Your task to perform on an android device: check storage Image 0: 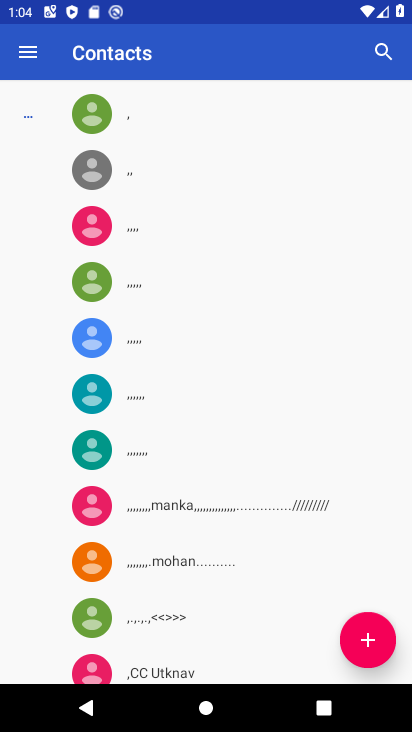
Step 0: press home button
Your task to perform on an android device: check storage Image 1: 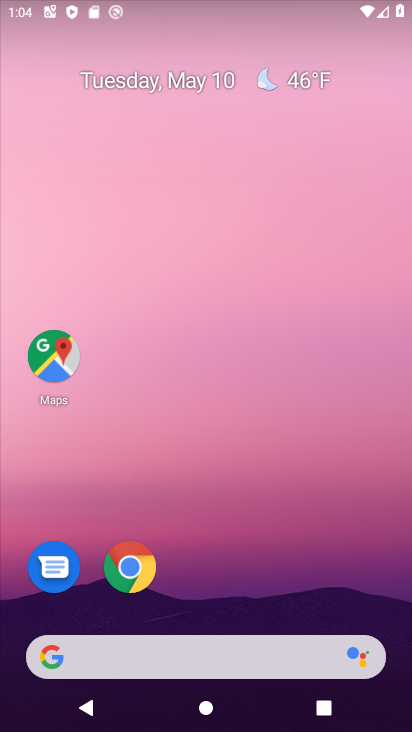
Step 1: drag from (237, 528) to (241, 201)
Your task to perform on an android device: check storage Image 2: 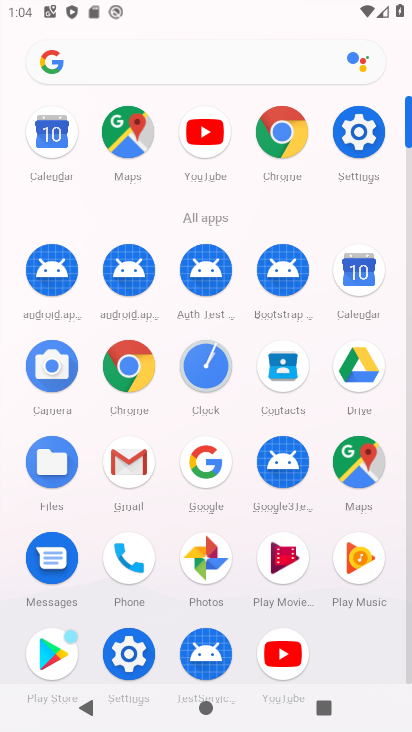
Step 2: click (353, 140)
Your task to perform on an android device: check storage Image 3: 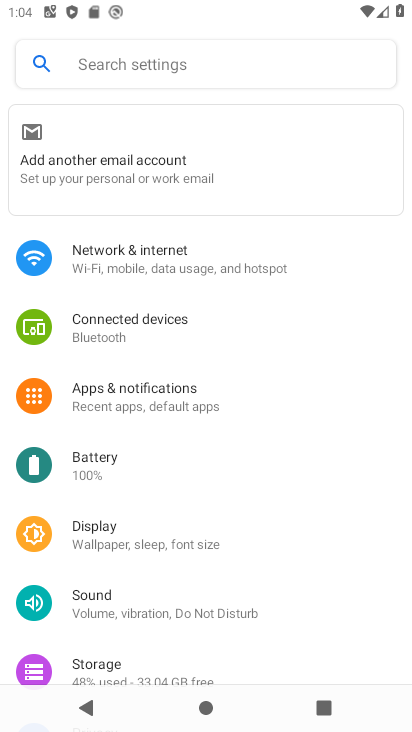
Step 3: drag from (152, 644) to (123, 320)
Your task to perform on an android device: check storage Image 4: 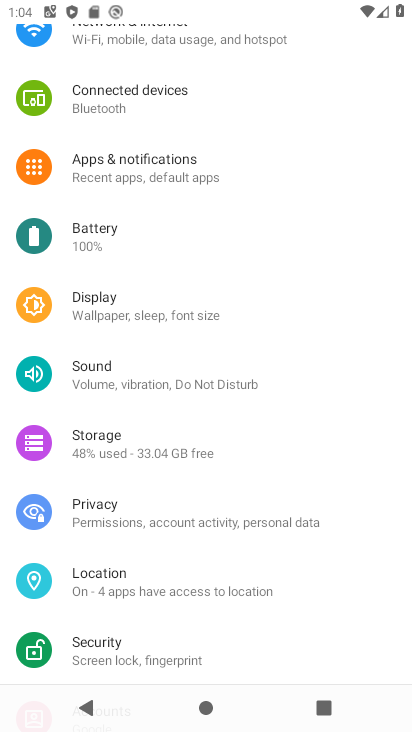
Step 4: click (153, 446)
Your task to perform on an android device: check storage Image 5: 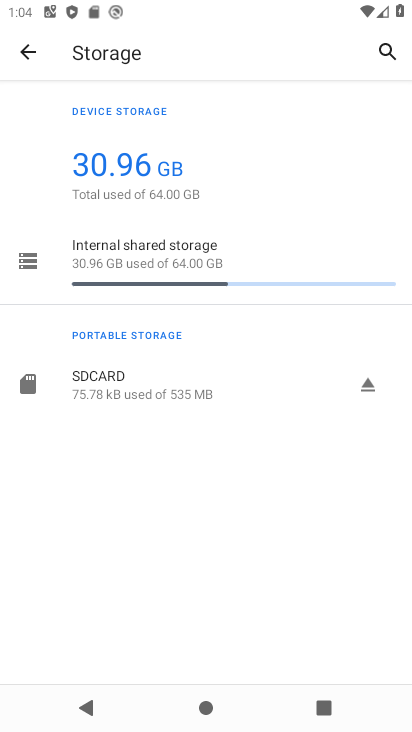
Step 5: task complete